Your task to perform on an android device: clear history in the chrome app Image 0: 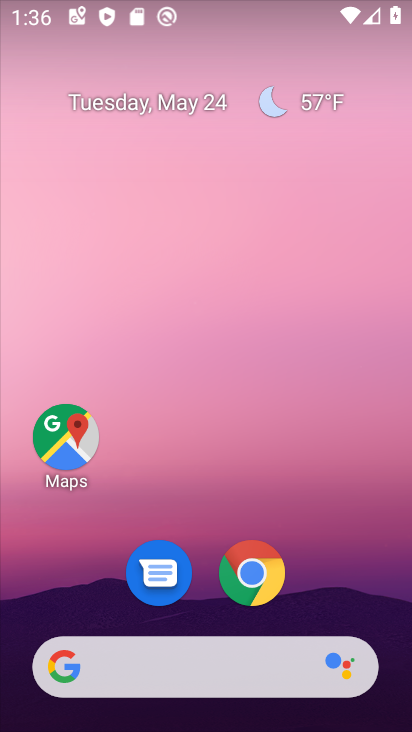
Step 0: drag from (333, 584) to (347, 235)
Your task to perform on an android device: clear history in the chrome app Image 1: 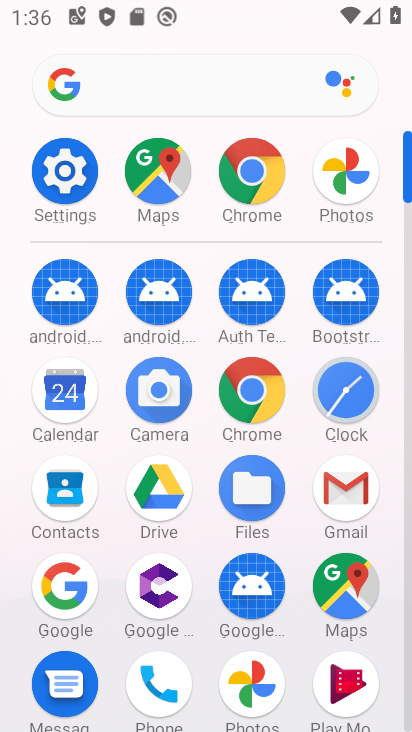
Step 1: click (256, 394)
Your task to perform on an android device: clear history in the chrome app Image 2: 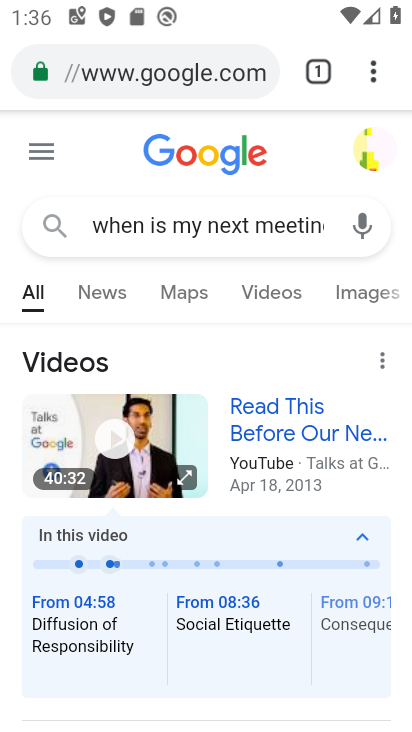
Step 2: click (241, 71)
Your task to perform on an android device: clear history in the chrome app Image 3: 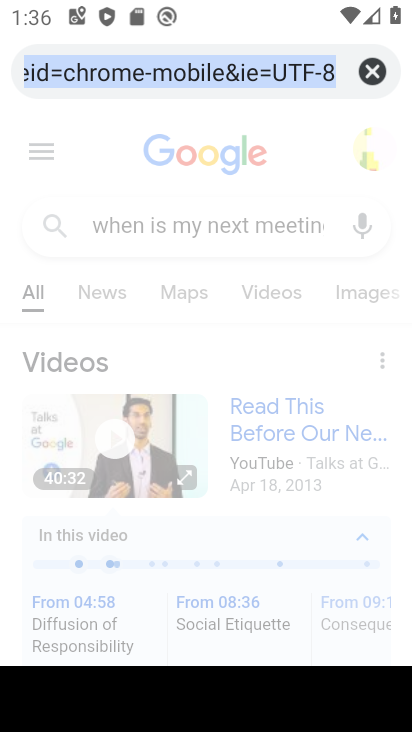
Step 3: click (372, 73)
Your task to perform on an android device: clear history in the chrome app Image 4: 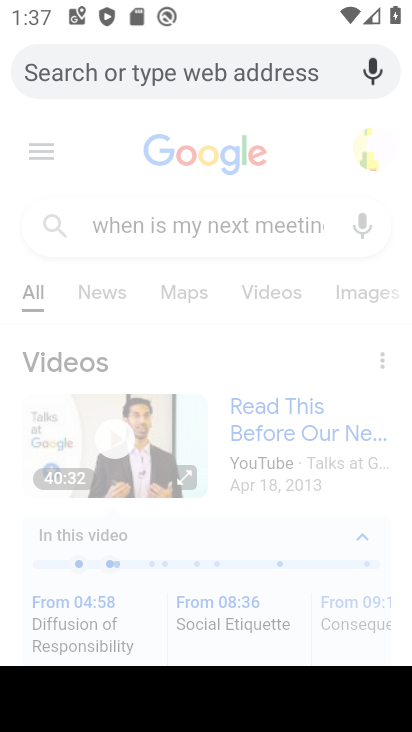
Step 4: press back button
Your task to perform on an android device: clear history in the chrome app Image 5: 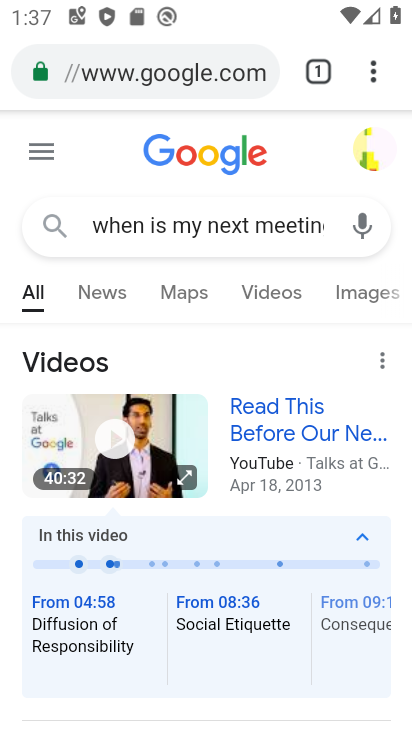
Step 5: click (377, 77)
Your task to perform on an android device: clear history in the chrome app Image 6: 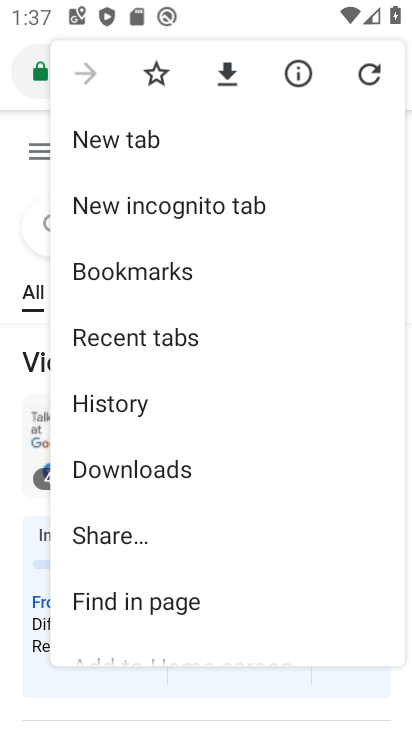
Step 6: click (132, 389)
Your task to perform on an android device: clear history in the chrome app Image 7: 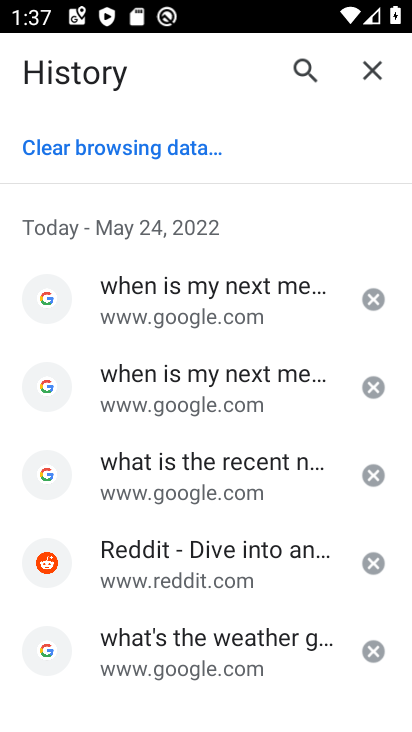
Step 7: click (137, 144)
Your task to perform on an android device: clear history in the chrome app Image 8: 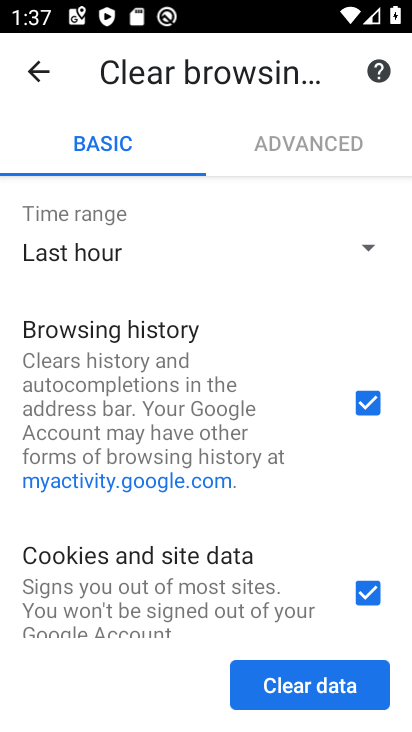
Step 8: click (318, 698)
Your task to perform on an android device: clear history in the chrome app Image 9: 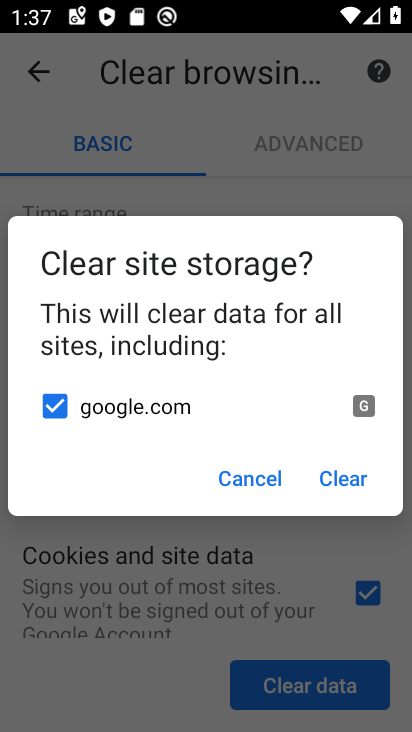
Step 9: click (338, 480)
Your task to perform on an android device: clear history in the chrome app Image 10: 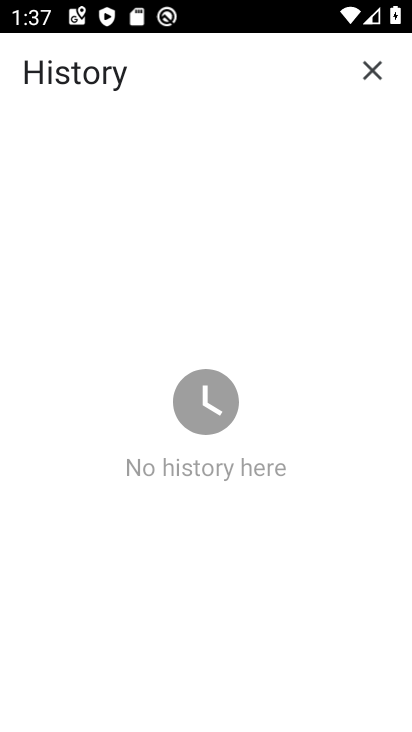
Step 10: task complete